Your task to perform on an android device: Go to Google Image 0: 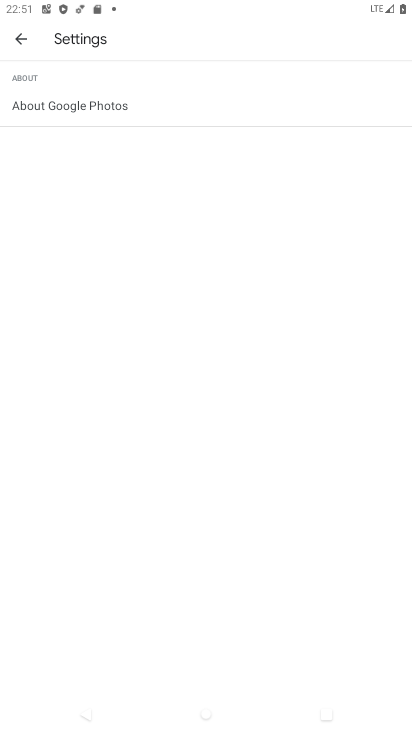
Step 0: press home button
Your task to perform on an android device: Go to Google Image 1: 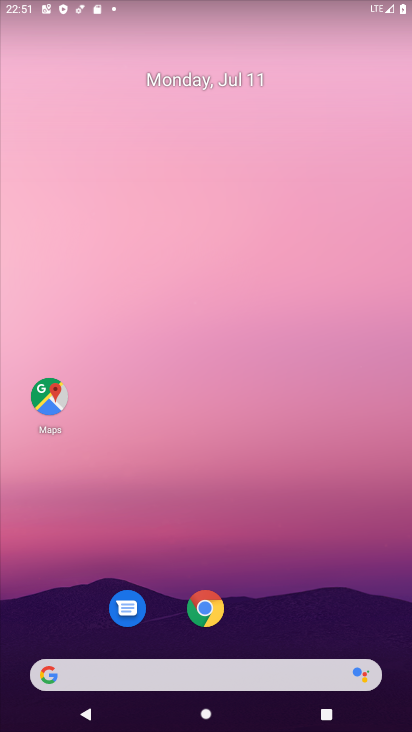
Step 1: click (119, 667)
Your task to perform on an android device: Go to Google Image 2: 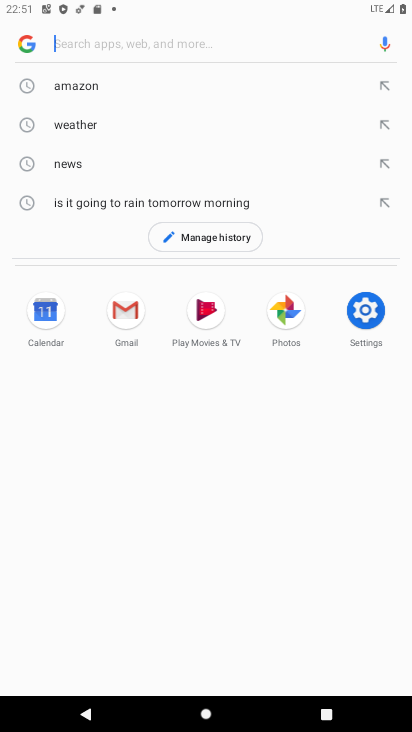
Step 2: task complete